Your task to perform on an android device: all mails in gmail Image 0: 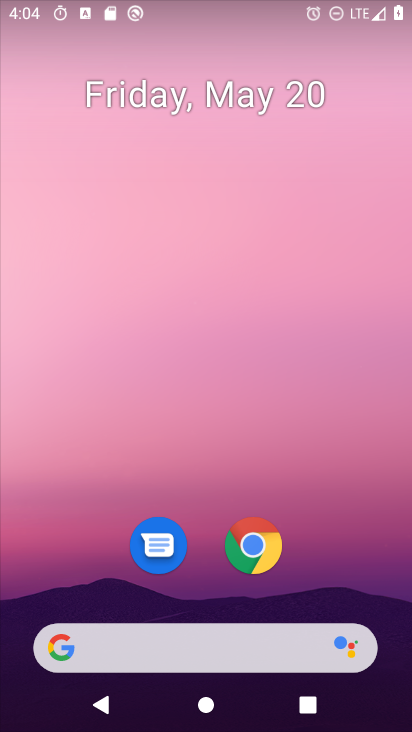
Step 0: drag from (357, 664) to (403, 498)
Your task to perform on an android device: all mails in gmail Image 1: 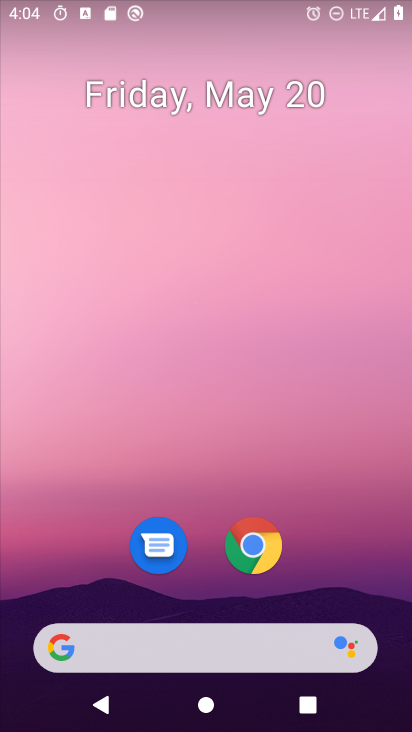
Step 1: drag from (324, 592) to (22, 689)
Your task to perform on an android device: all mails in gmail Image 2: 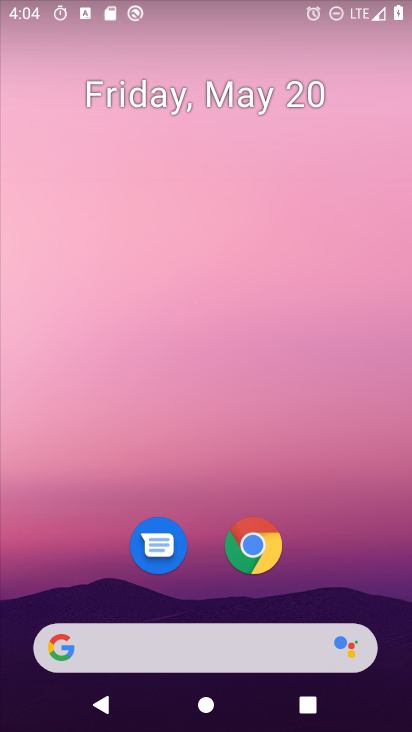
Step 2: click (347, 530)
Your task to perform on an android device: all mails in gmail Image 3: 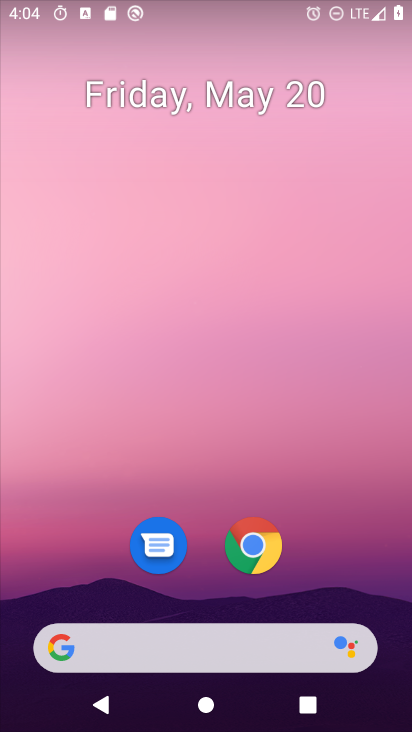
Step 3: drag from (344, 625) to (279, 28)
Your task to perform on an android device: all mails in gmail Image 4: 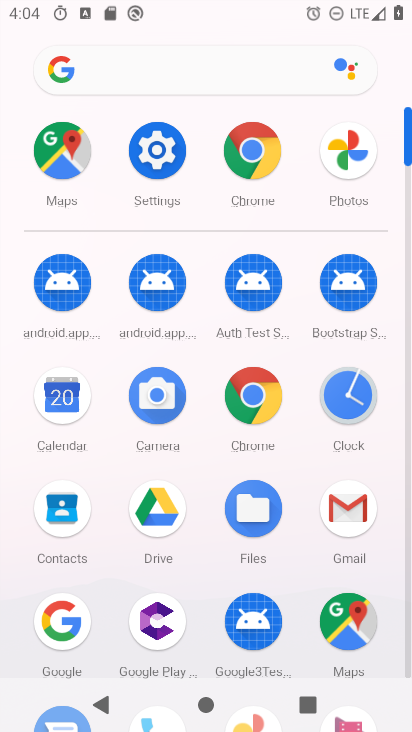
Step 4: click (332, 489)
Your task to perform on an android device: all mails in gmail Image 5: 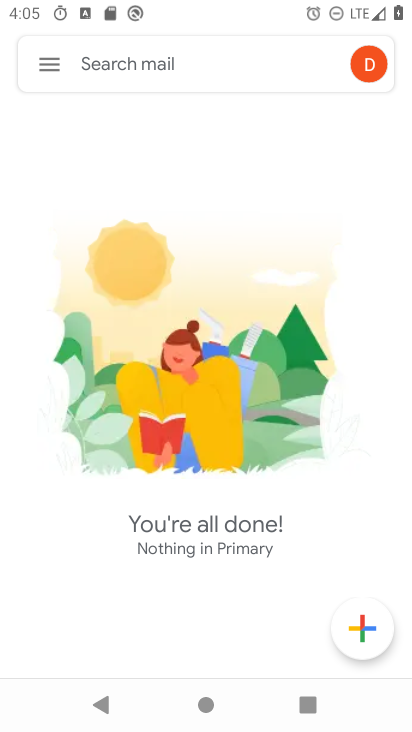
Step 5: click (49, 60)
Your task to perform on an android device: all mails in gmail Image 6: 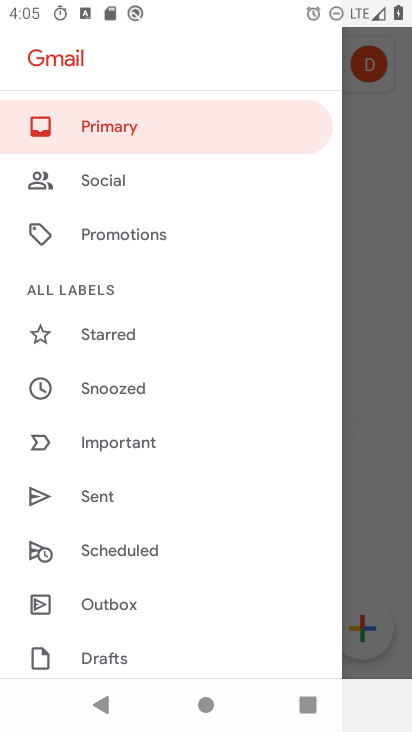
Step 6: drag from (132, 632) to (171, 232)
Your task to perform on an android device: all mails in gmail Image 7: 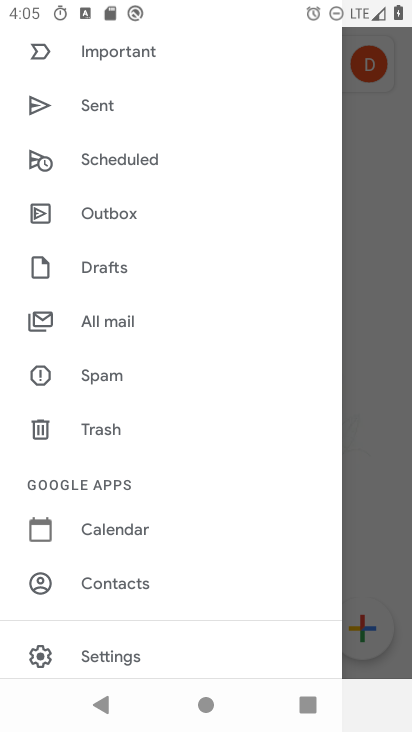
Step 7: click (112, 318)
Your task to perform on an android device: all mails in gmail Image 8: 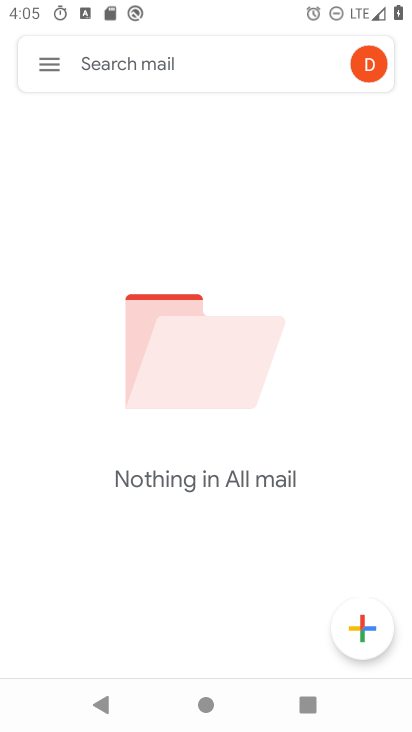
Step 8: task complete